Your task to perform on an android device: Search for pizza restaurants on Maps Image 0: 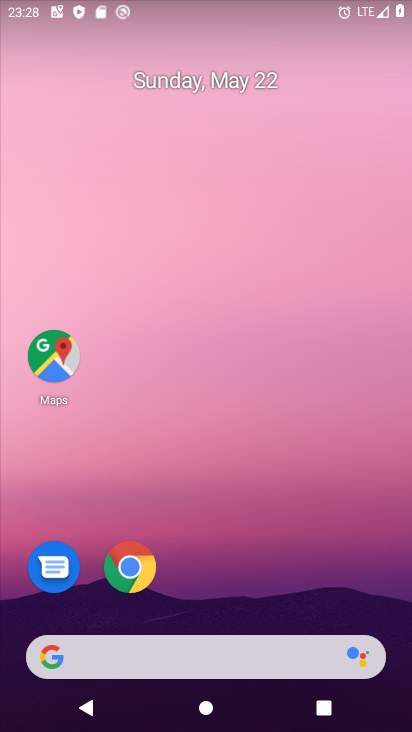
Step 0: drag from (272, 550) to (259, 8)
Your task to perform on an android device: Search for pizza restaurants on Maps Image 1: 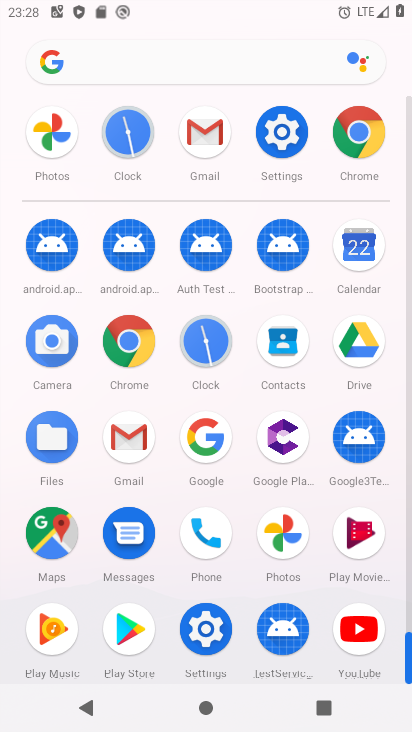
Step 1: click (48, 528)
Your task to perform on an android device: Search for pizza restaurants on Maps Image 2: 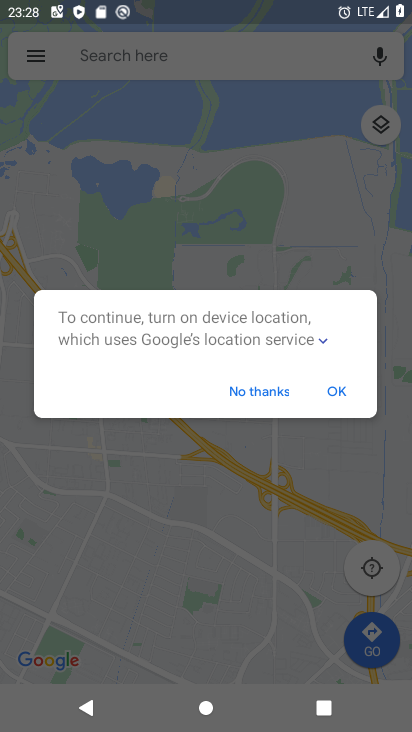
Step 2: click (336, 390)
Your task to perform on an android device: Search for pizza restaurants on Maps Image 3: 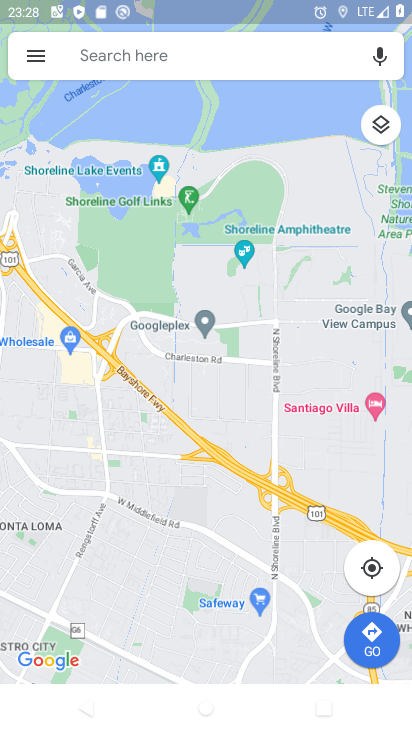
Step 3: click (172, 58)
Your task to perform on an android device: Search for pizza restaurants on Maps Image 4: 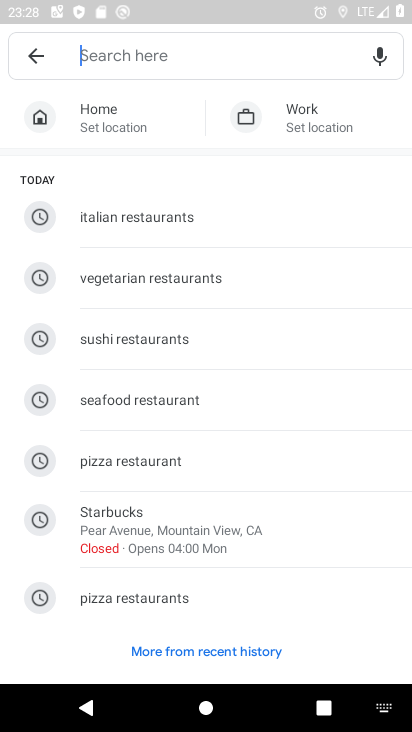
Step 4: click (153, 460)
Your task to perform on an android device: Search for pizza restaurants on Maps Image 5: 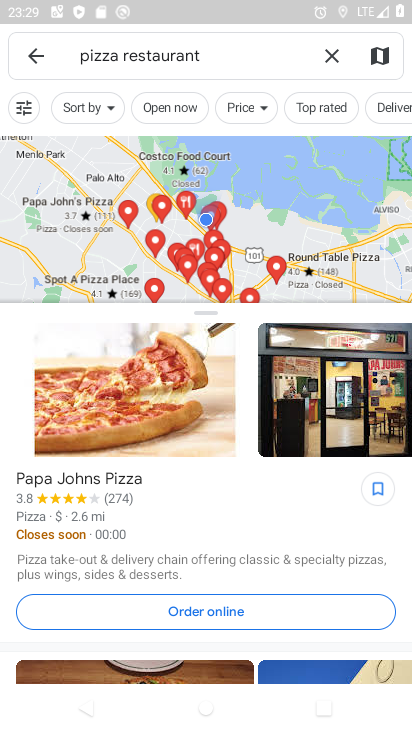
Step 5: task complete